Your task to perform on an android device: find photos in the google photos app Image 0: 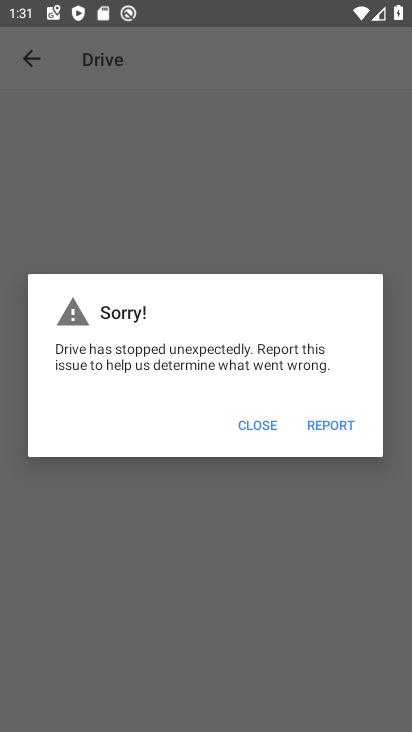
Step 0: drag from (316, 606) to (363, 257)
Your task to perform on an android device: find photos in the google photos app Image 1: 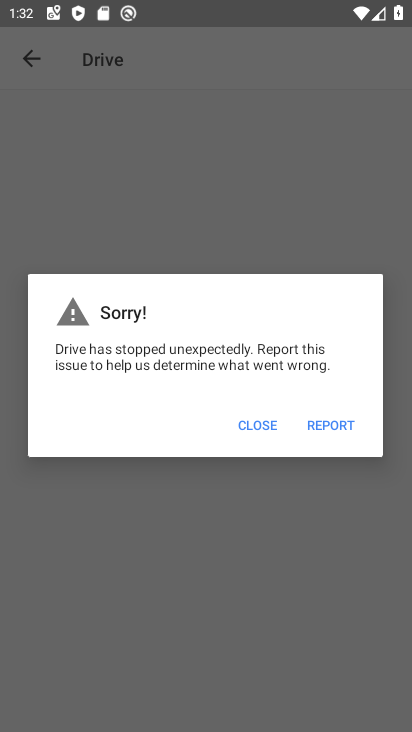
Step 1: press home button
Your task to perform on an android device: find photos in the google photos app Image 2: 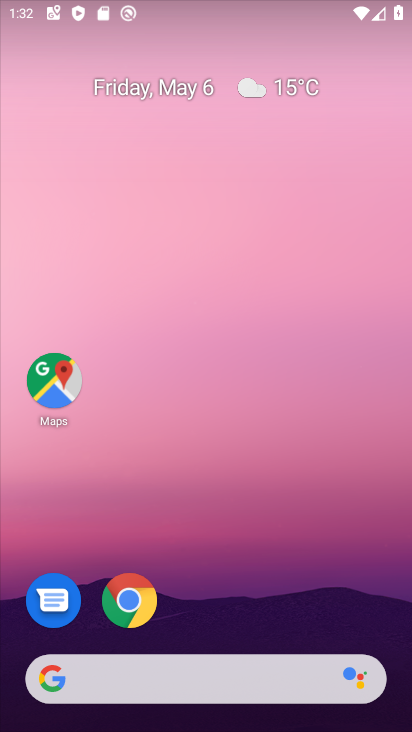
Step 2: drag from (297, 615) to (227, 2)
Your task to perform on an android device: find photos in the google photos app Image 3: 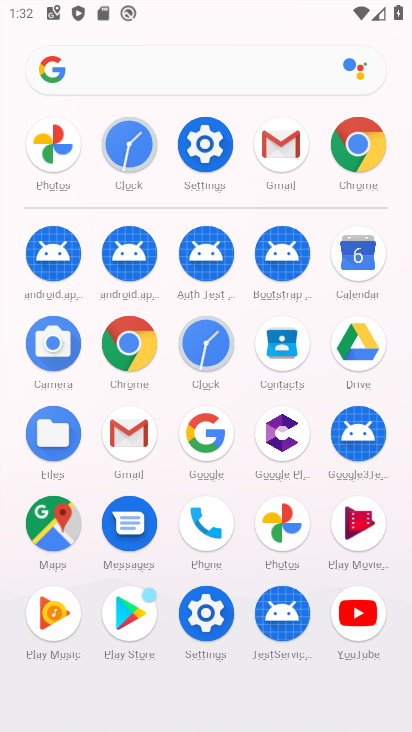
Step 3: click (264, 542)
Your task to perform on an android device: find photos in the google photos app Image 4: 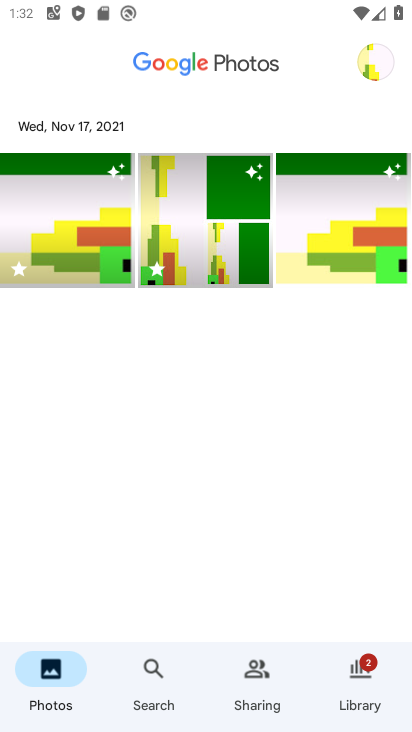
Step 4: task complete